Your task to perform on an android device: Open calendar and show me the first week of next month Image 0: 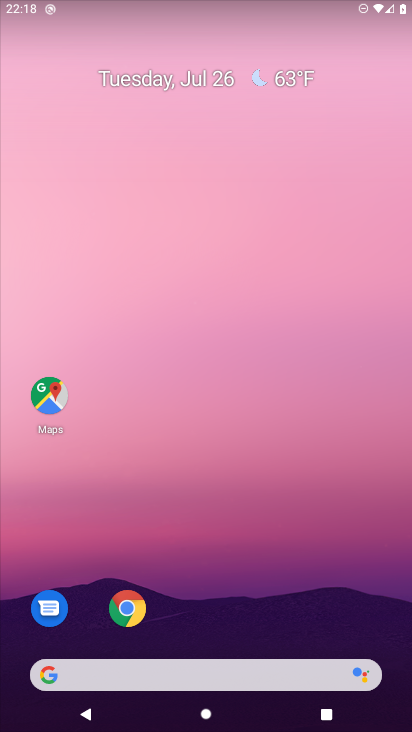
Step 0: drag from (36, 703) to (233, 155)
Your task to perform on an android device: Open calendar and show me the first week of next month Image 1: 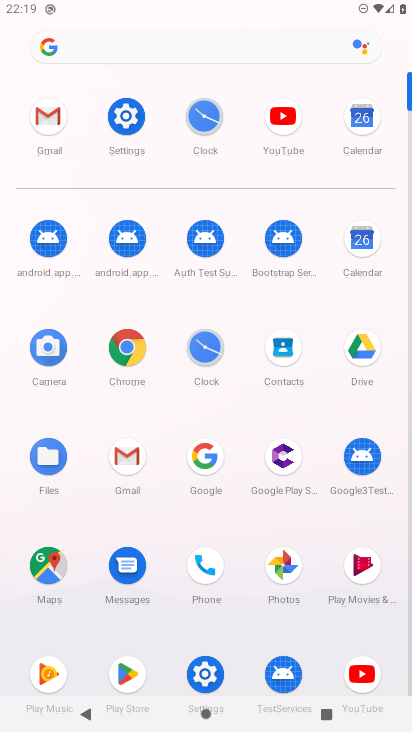
Step 1: click (357, 249)
Your task to perform on an android device: Open calendar and show me the first week of next month Image 2: 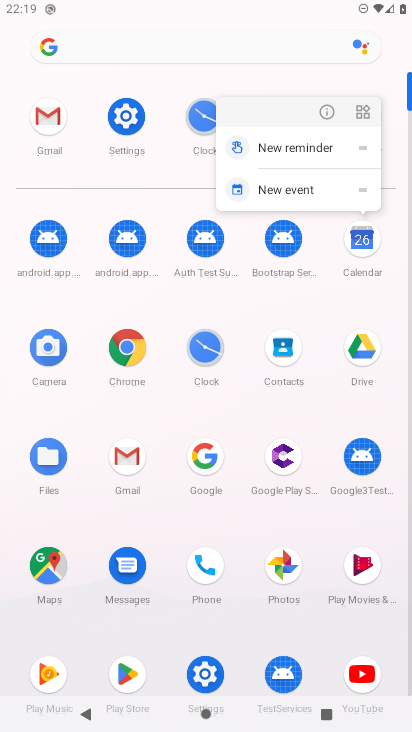
Step 2: click (357, 249)
Your task to perform on an android device: Open calendar and show me the first week of next month Image 3: 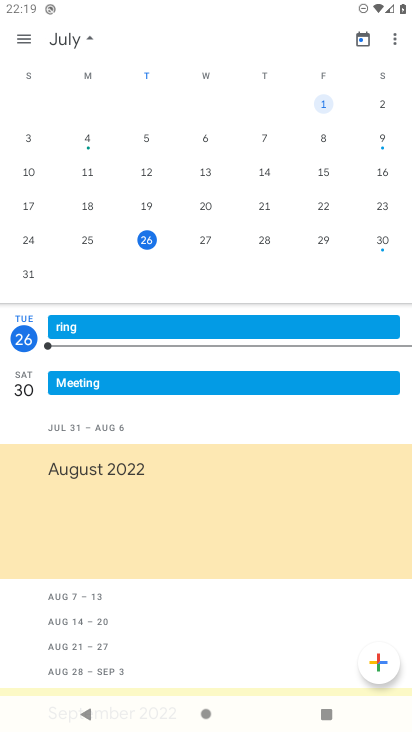
Step 3: task complete